Your task to perform on an android device: toggle wifi Image 0: 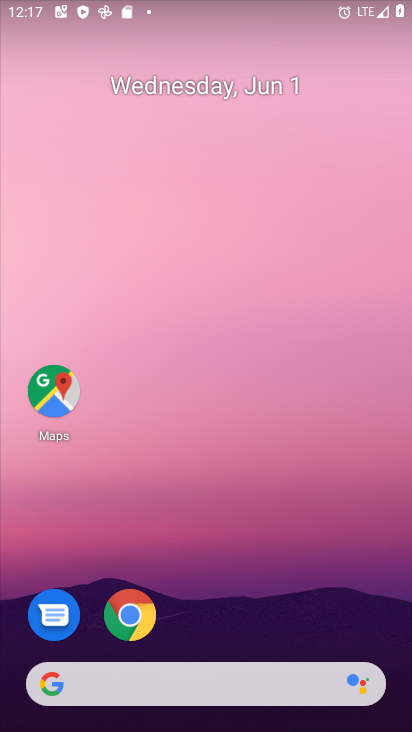
Step 0: drag from (233, 645) to (266, 87)
Your task to perform on an android device: toggle wifi Image 1: 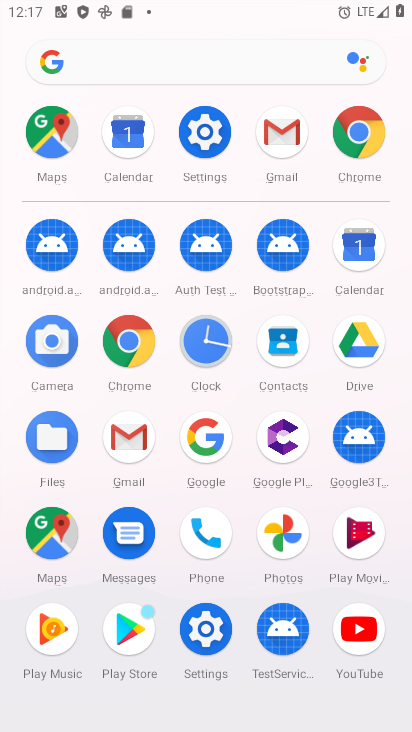
Step 1: click (220, 139)
Your task to perform on an android device: toggle wifi Image 2: 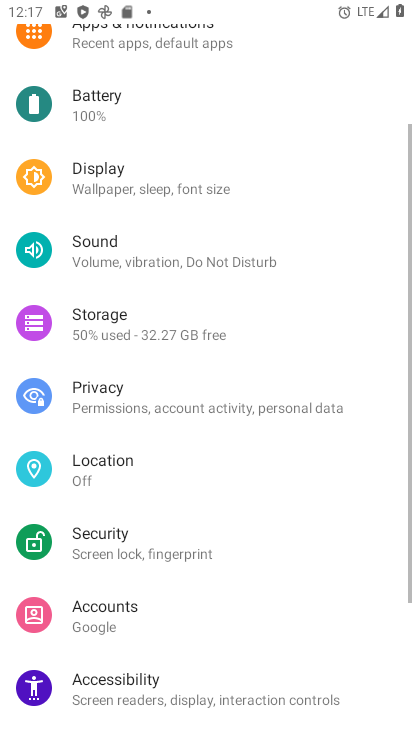
Step 2: drag from (227, 211) to (299, 600)
Your task to perform on an android device: toggle wifi Image 3: 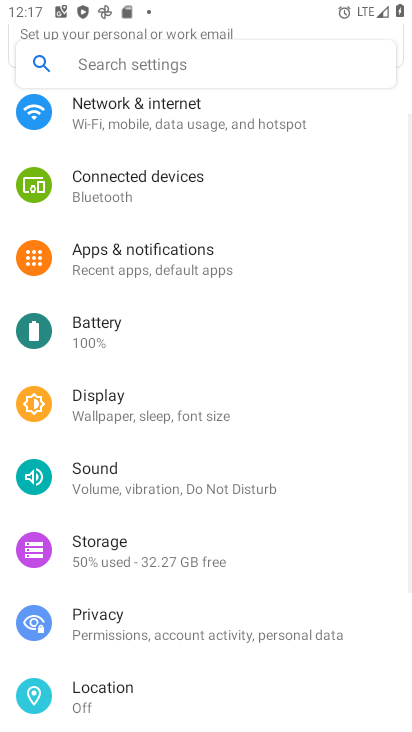
Step 3: drag from (247, 191) to (310, 605)
Your task to perform on an android device: toggle wifi Image 4: 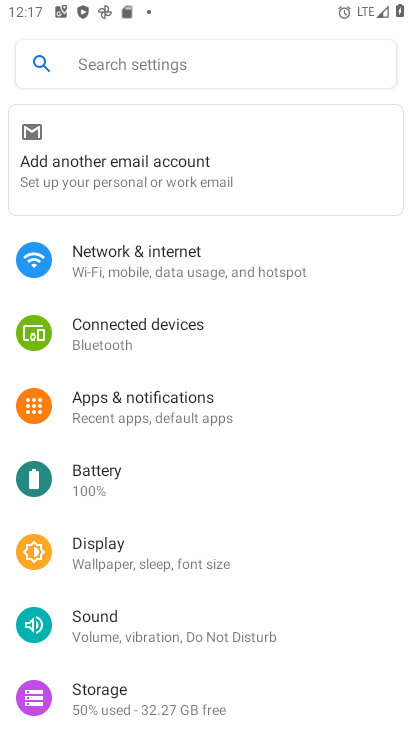
Step 4: click (179, 245)
Your task to perform on an android device: toggle wifi Image 5: 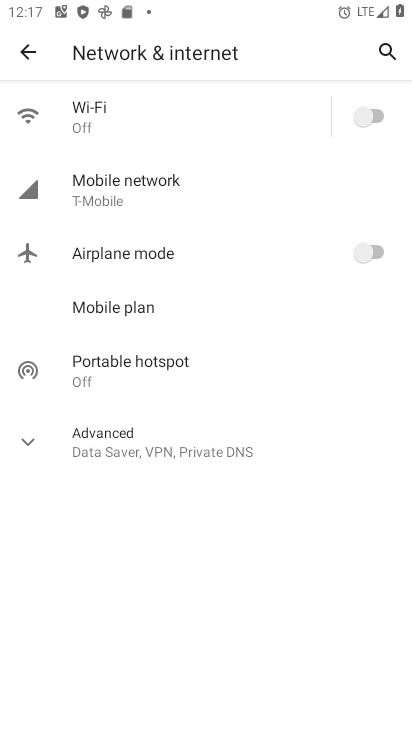
Step 5: click (125, 133)
Your task to perform on an android device: toggle wifi Image 6: 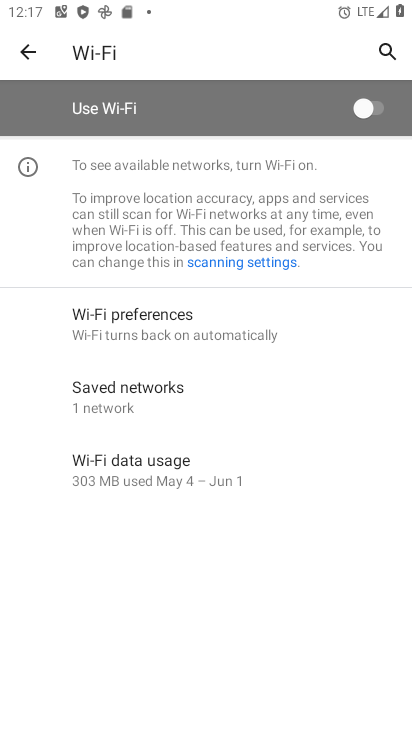
Step 6: click (352, 106)
Your task to perform on an android device: toggle wifi Image 7: 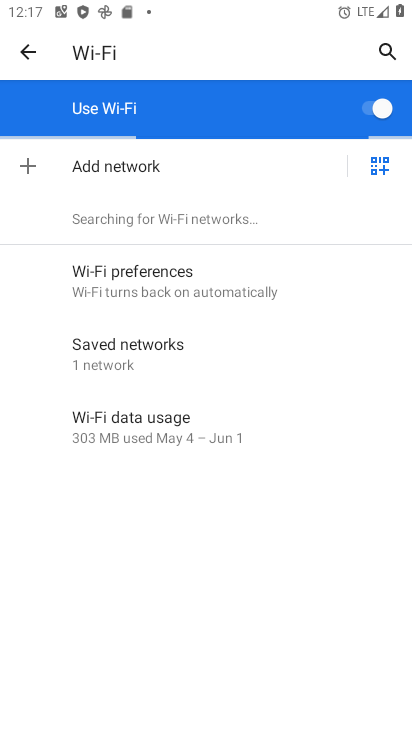
Step 7: task complete